Your task to perform on an android device: toggle location history Image 0: 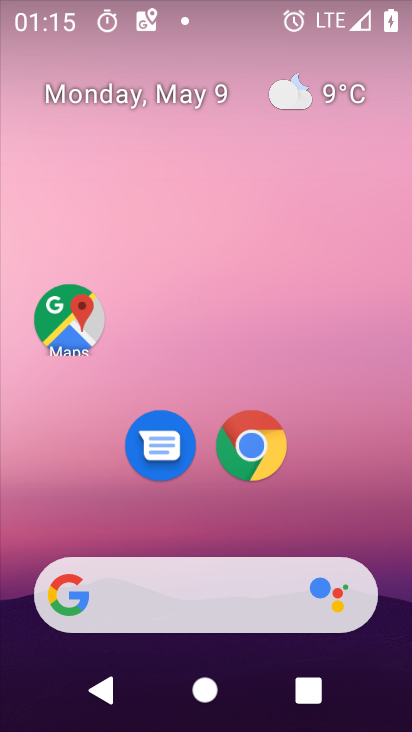
Step 0: click (66, 324)
Your task to perform on an android device: toggle location history Image 1: 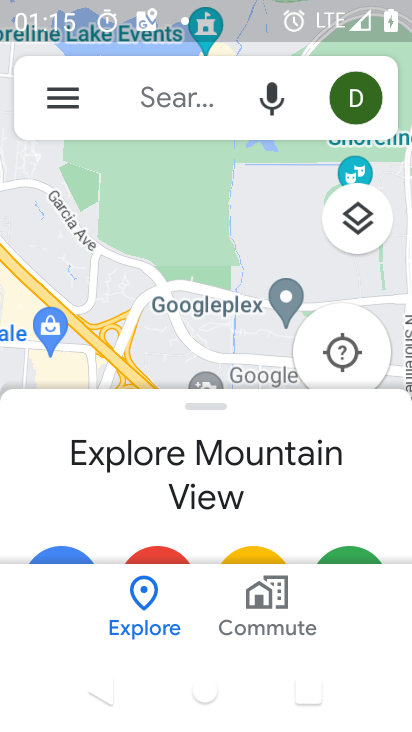
Step 1: click (58, 101)
Your task to perform on an android device: toggle location history Image 2: 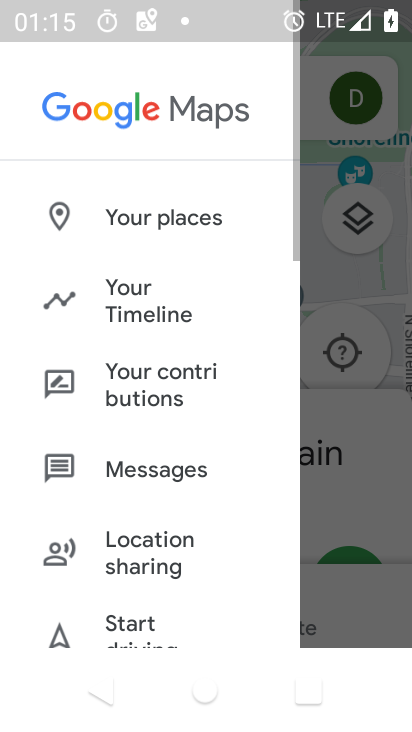
Step 2: click (129, 304)
Your task to perform on an android device: toggle location history Image 3: 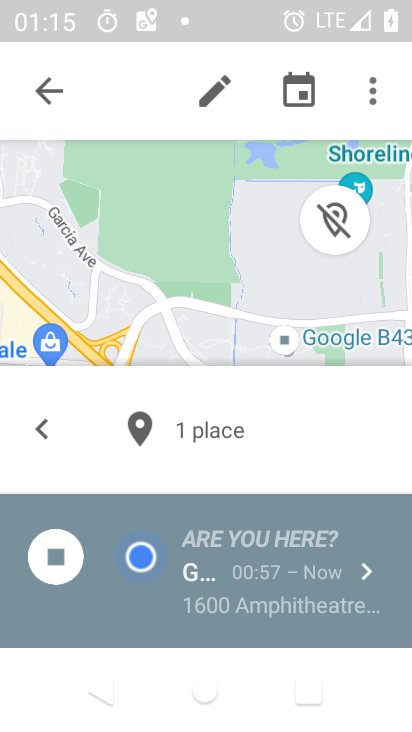
Step 3: click (376, 88)
Your task to perform on an android device: toggle location history Image 4: 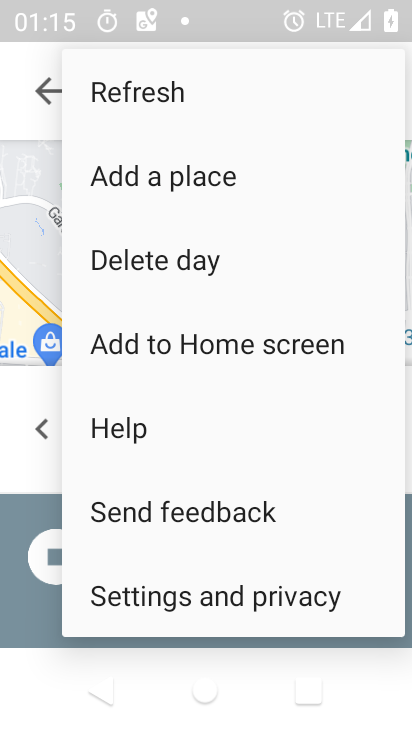
Step 4: click (152, 601)
Your task to perform on an android device: toggle location history Image 5: 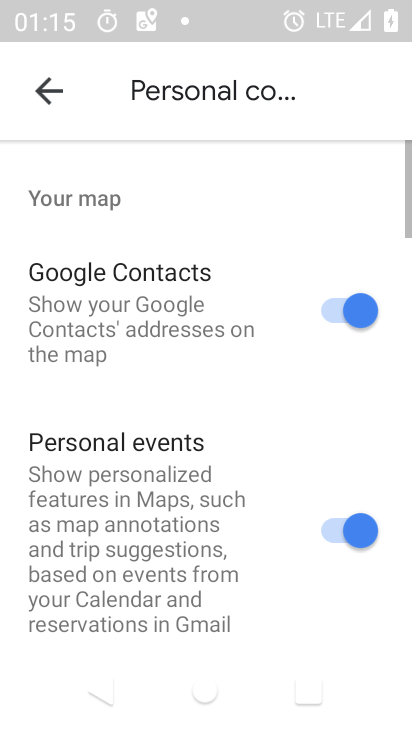
Step 5: drag from (152, 603) to (197, 158)
Your task to perform on an android device: toggle location history Image 6: 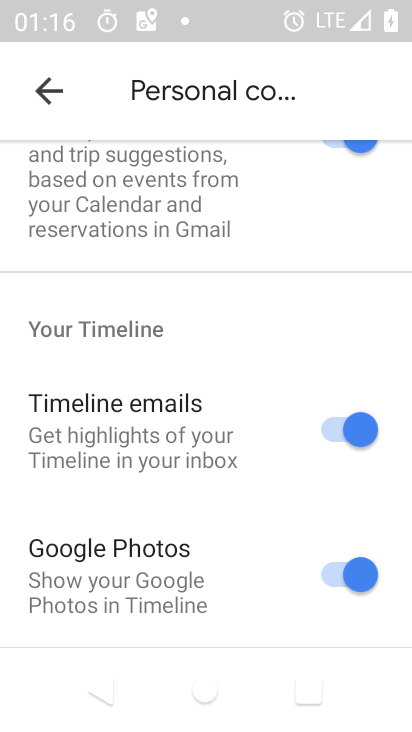
Step 6: drag from (173, 525) to (200, 168)
Your task to perform on an android device: toggle location history Image 7: 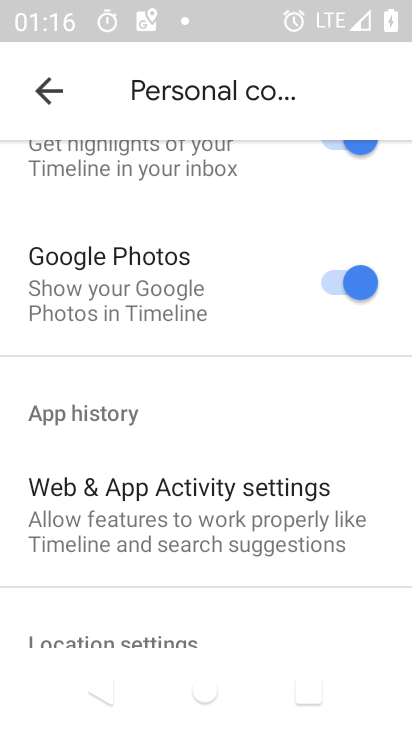
Step 7: drag from (172, 486) to (174, 192)
Your task to perform on an android device: toggle location history Image 8: 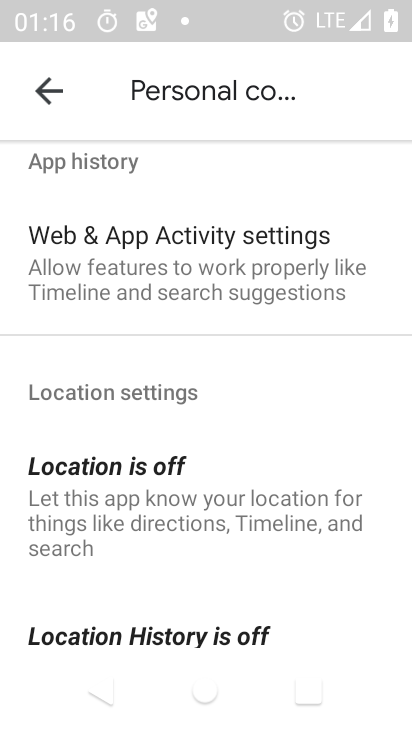
Step 8: drag from (137, 533) to (136, 242)
Your task to perform on an android device: toggle location history Image 9: 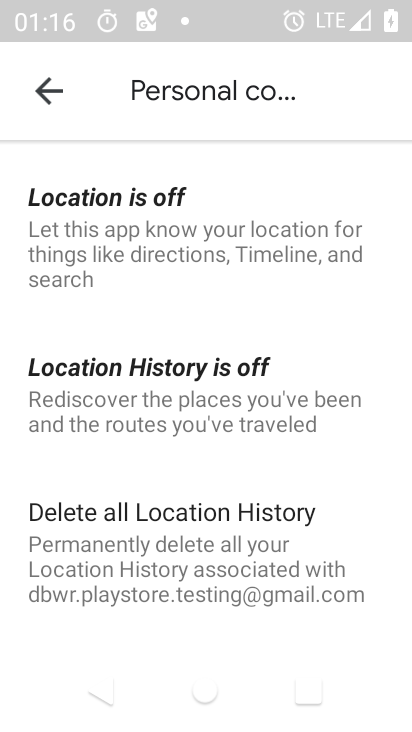
Step 9: click (101, 404)
Your task to perform on an android device: toggle location history Image 10: 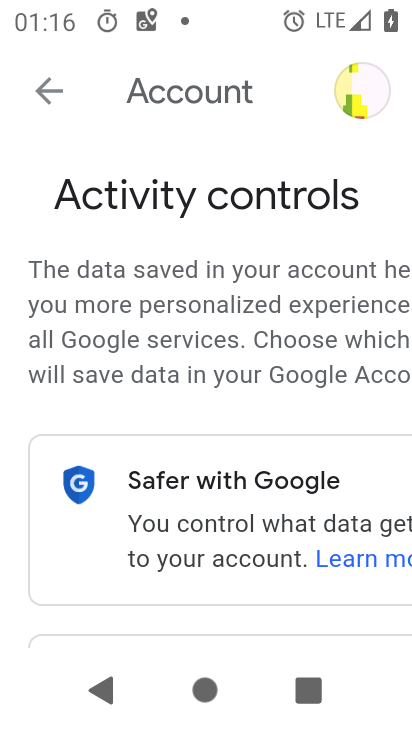
Step 10: drag from (239, 507) to (204, 184)
Your task to perform on an android device: toggle location history Image 11: 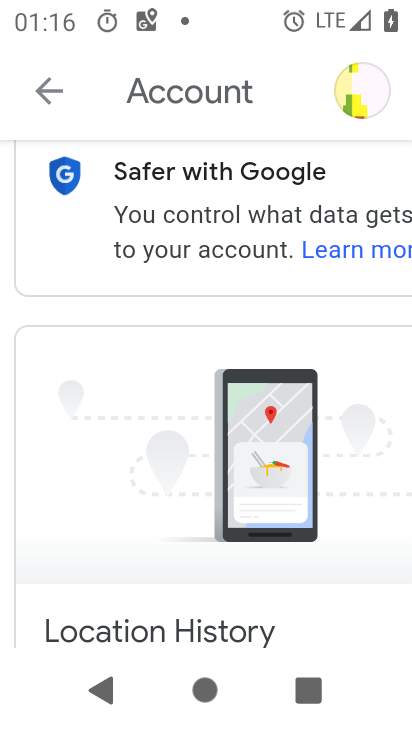
Step 11: drag from (212, 567) to (207, 183)
Your task to perform on an android device: toggle location history Image 12: 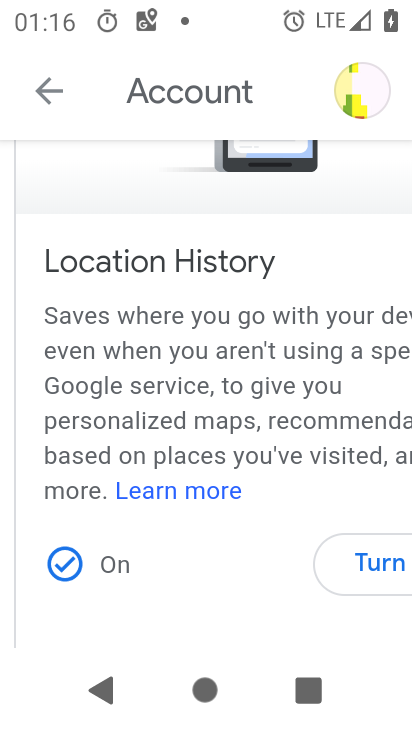
Step 12: click (381, 565)
Your task to perform on an android device: toggle location history Image 13: 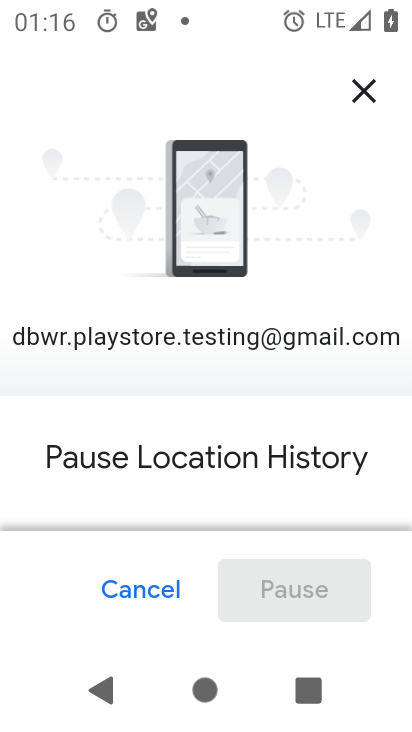
Step 13: drag from (205, 494) to (241, 119)
Your task to perform on an android device: toggle location history Image 14: 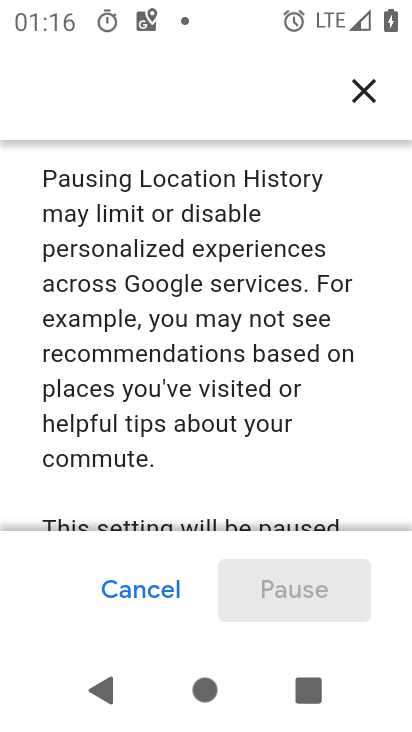
Step 14: drag from (199, 436) to (204, 98)
Your task to perform on an android device: toggle location history Image 15: 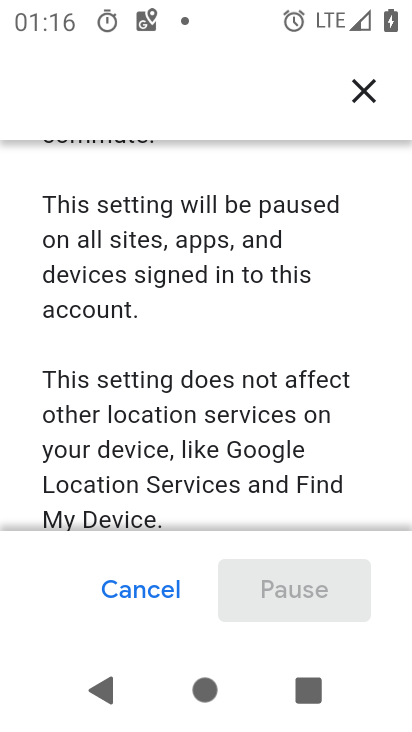
Step 15: drag from (214, 444) to (242, 103)
Your task to perform on an android device: toggle location history Image 16: 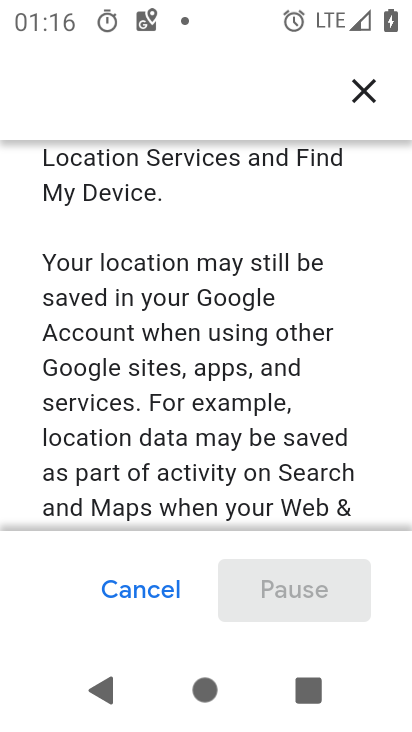
Step 16: drag from (184, 458) to (219, 111)
Your task to perform on an android device: toggle location history Image 17: 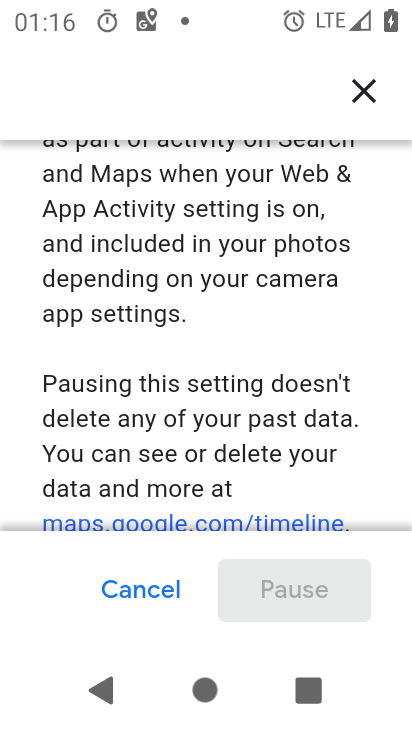
Step 17: drag from (176, 461) to (214, 122)
Your task to perform on an android device: toggle location history Image 18: 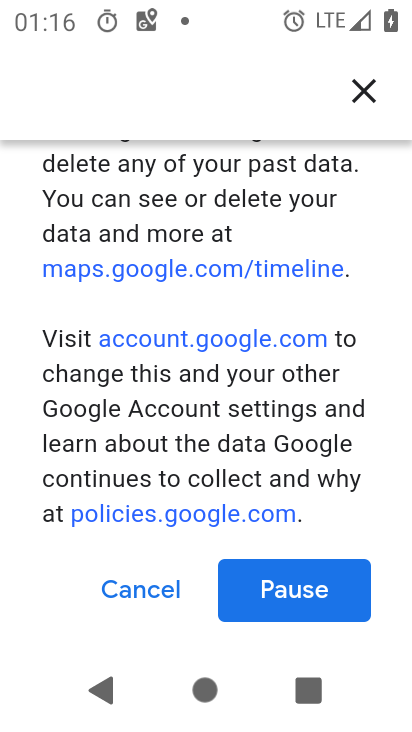
Step 18: click (292, 605)
Your task to perform on an android device: toggle location history Image 19: 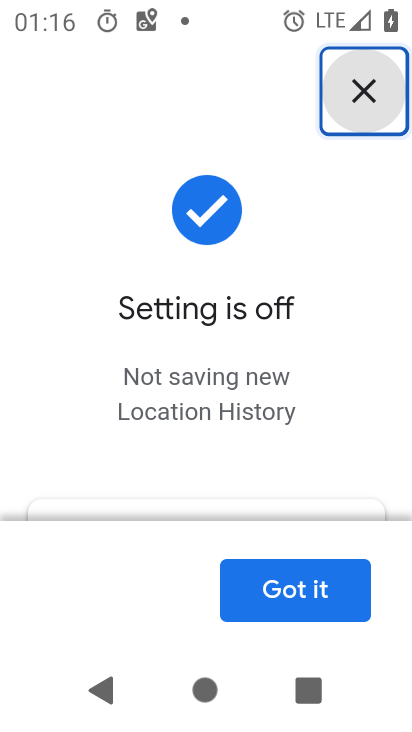
Step 19: click (292, 605)
Your task to perform on an android device: toggle location history Image 20: 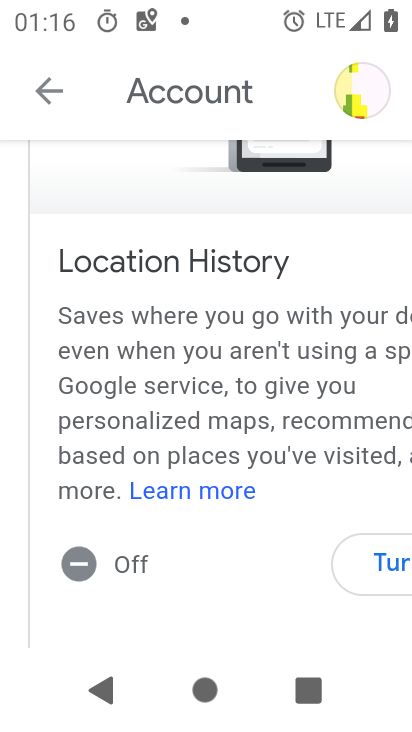
Step 20: task complete